Your task to perform on an android device: turn notification dots off Image 0: 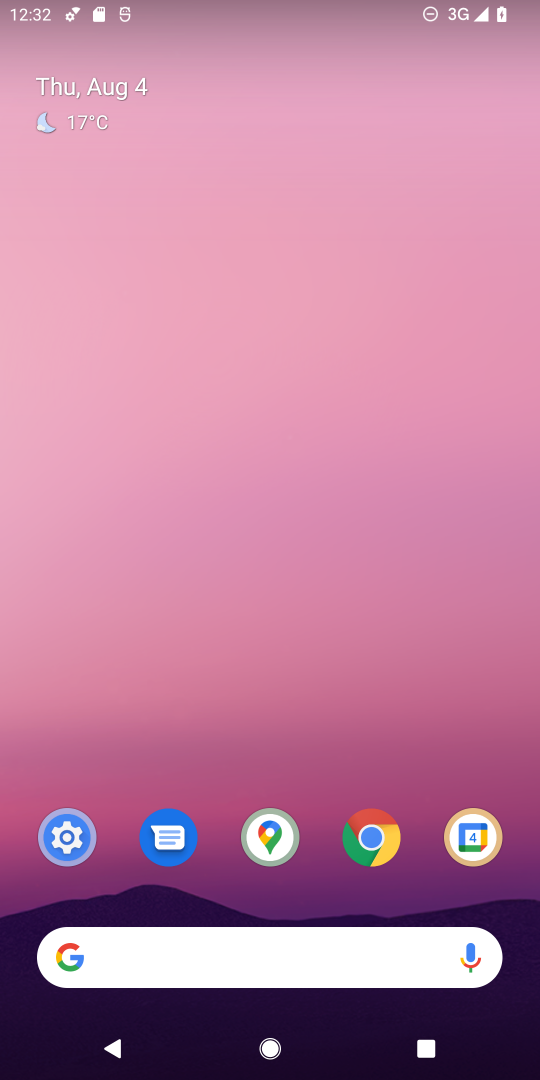
Step 0: drag from (426, 896) to (282, 44)
Your task to perform on an android device: turn notification dots off Image 1: 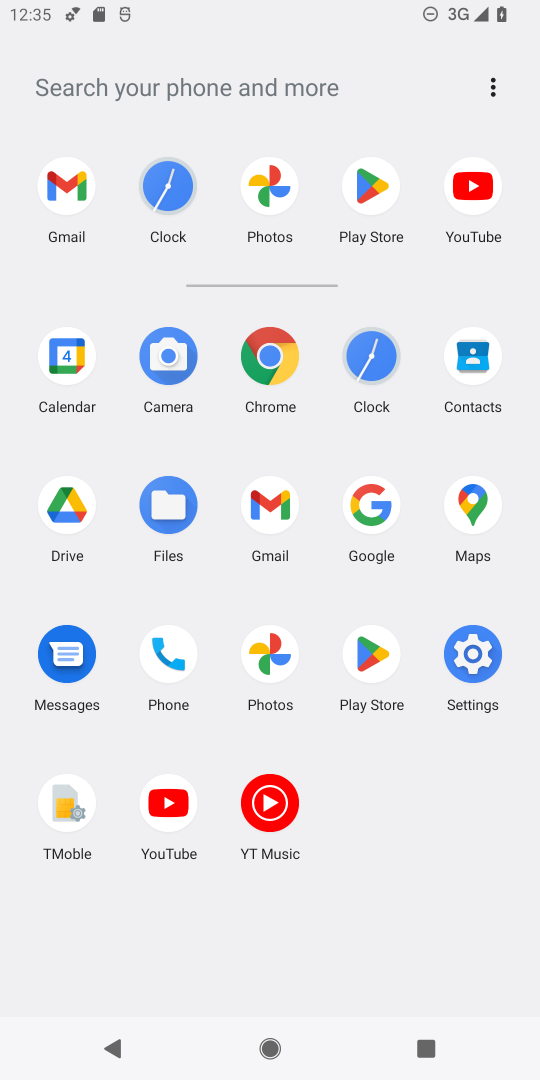
Step 1: click (485, 667)
Your task to perform on an android device: turn notification dots off Image 2: 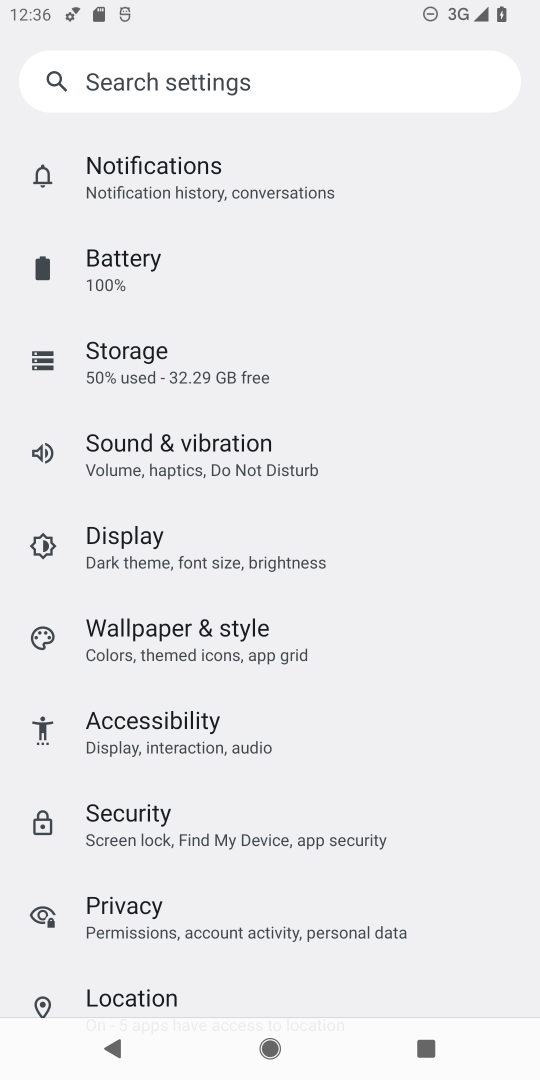
Step 2: click (185, 186)
Your task to perform on an android device: turn notification dots off Image 3: 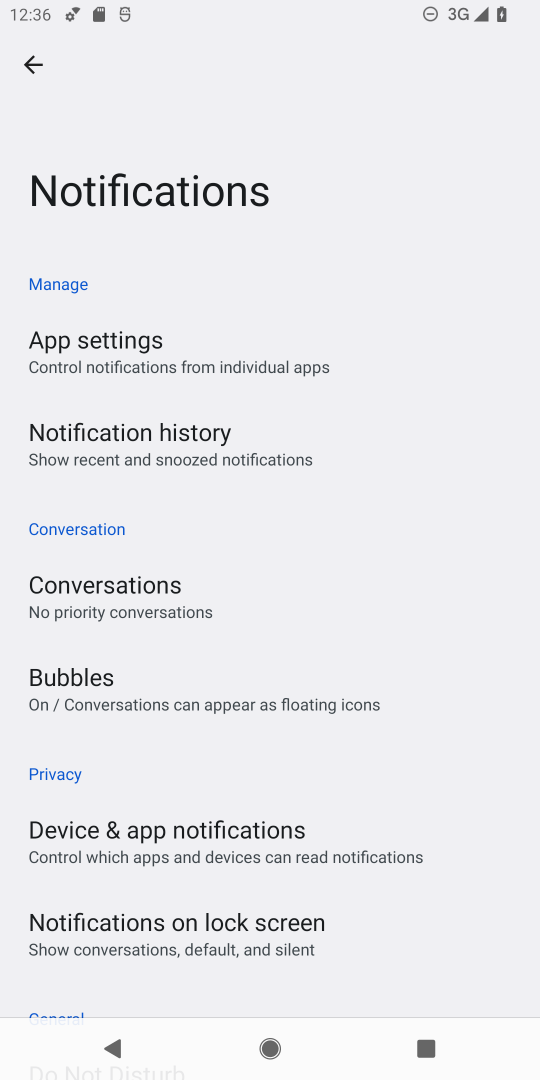
Step 3: drag from (250, 934) to (219, 100)
Your task to perform on an android device: turn notification dots off Image 4: 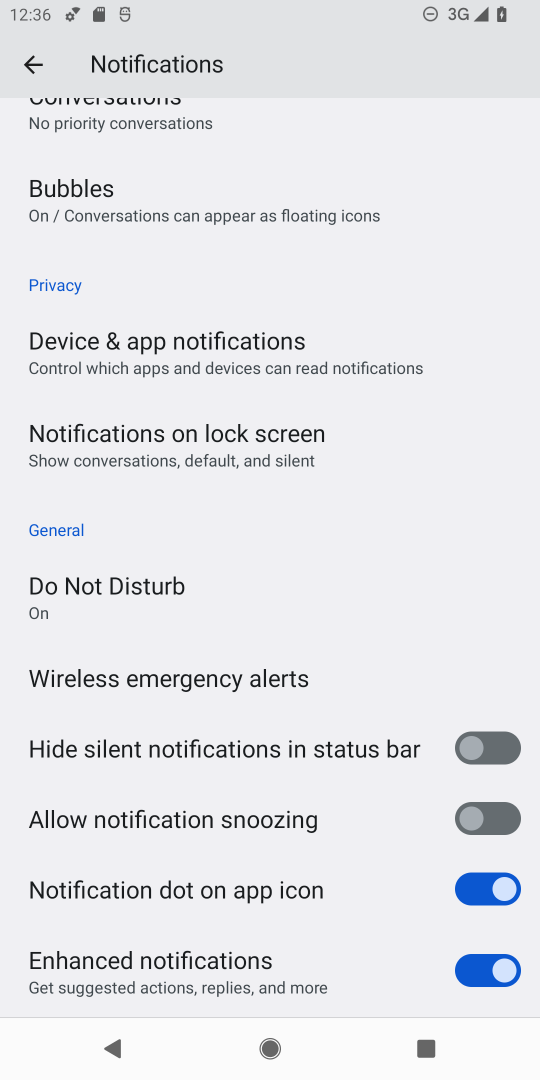
Step 4: drag from (391, 895) to (336, 280)
Your task to perform on an android device: turn notification dots off Image 5: 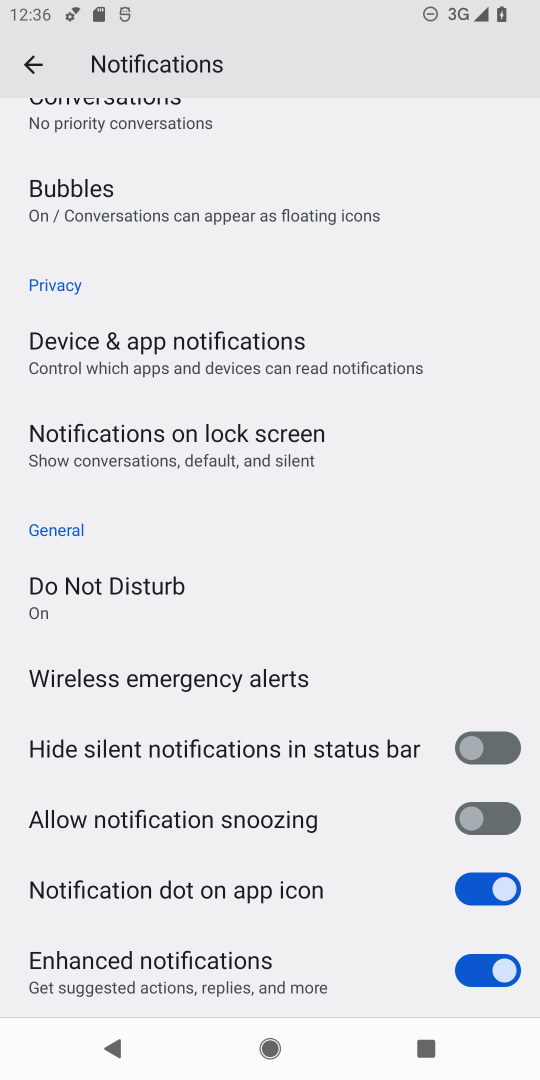
Step 5: click (439, 875)
Your task to perform on an android device: turn notification dots off Image 6: 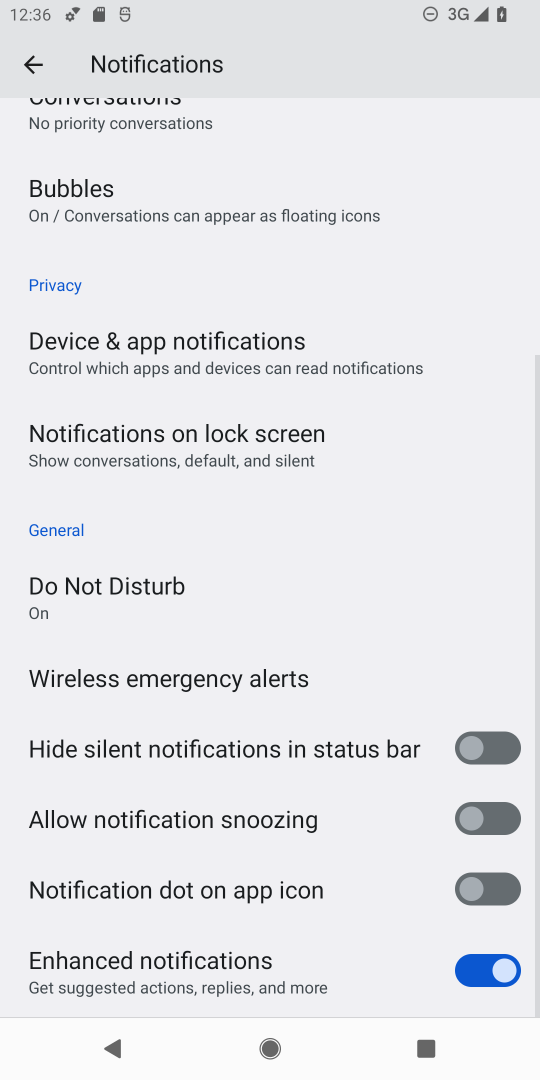
Step 6: task complete